Your task to perform on an android device: Search for "razer kraken" on ebay.com, select the first entry, add it to the cart, then select checkout. Image 0: 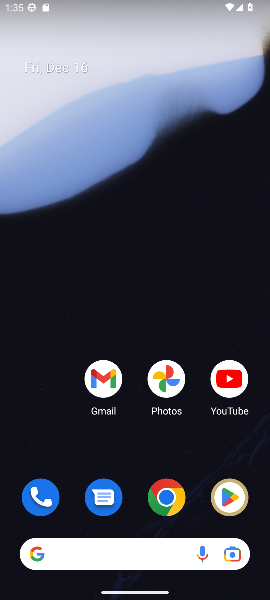
Step 0: click (175, 499)
Your task to perform on an android device: Search for "razer kraken" on ebay.com, select the first entry, add it to the cart, then select checkout. Image 1: 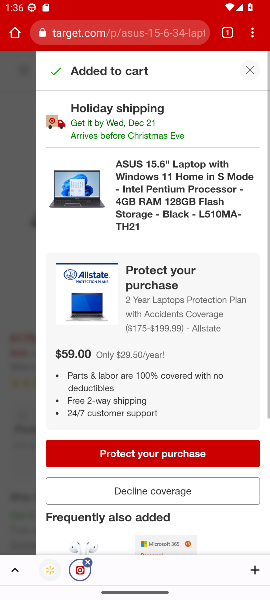
Step 1: click (137, 32)
Your task to perform on an android device: Search for "razer kraken" on ebay.com, select the first entry, add it to the cart, then select checkout. Image 2: 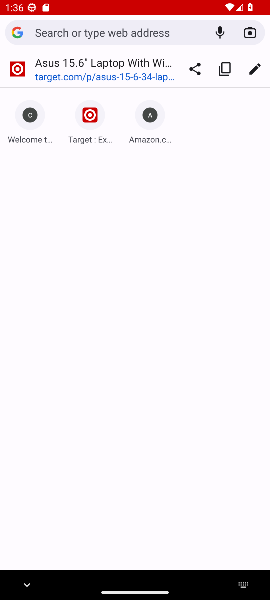
Step 2: type "EBAY"
Your task to perform on an android device: Search for "razer kraken" on ebay.com, select the first entry, add it to the cart, then select checkout. Image 3: 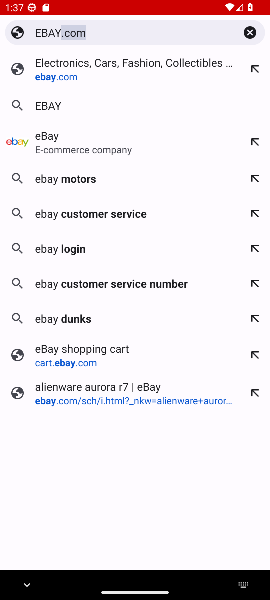
Step 3: click (127, 77)
Your task to perform on an android device: Search for "razer kraken" on ebay.com, select the first entry, add it to the cart, then select checkout. Image 4: 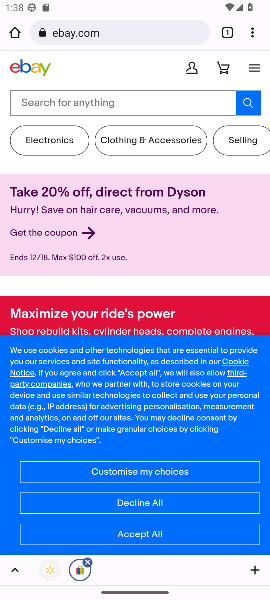
Step 4: click (155, 538)
Your task to perform on an android device: Search for "razer kraken" on ebay.com, select the first entry, add it to the cart, then select checkout. Image 5: 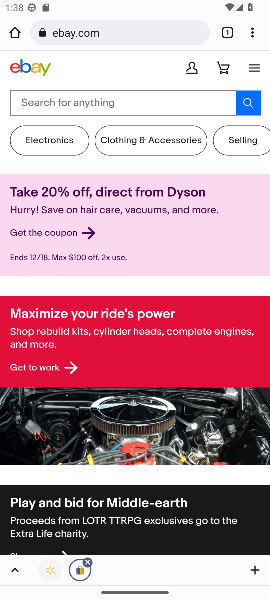
Step 5: click (115, 100)
Your task to perform on an android device: Search for "razer kraken" on ebay.com, select the first entry, add it to the cart, then select checkout. Image 6: 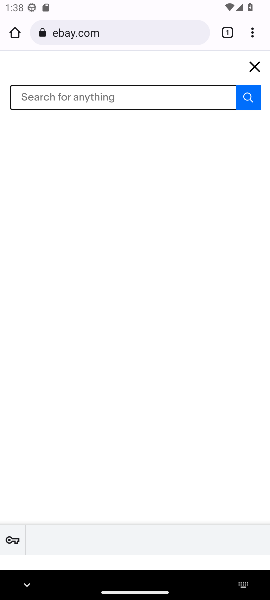
Step 6: type "razer kraken"
Your task to perform on an android device: Search for "razer kraken" on ebay.com, select the first entry, add it to the cart, then select checkout. Image 7: 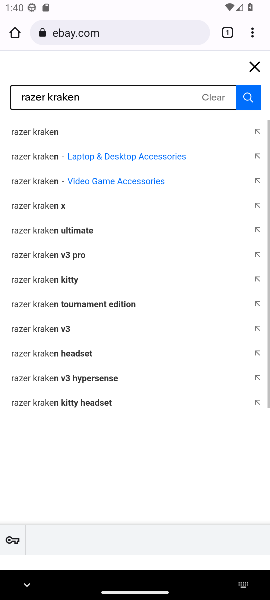
Step 7: click (32, 127)
Your task to perform on an android device: Search for "razer kraken" on ebay.com, select the first entry, add it to the cart, then select checkout. Image 8: 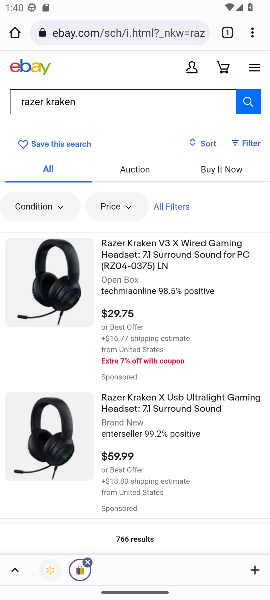
Step 8: click (207, 258)
Your task to perform on an android device: Search for "razer kraken" on ebay.com, select the first entry, add it to the cart, then select checkout. Image 9: 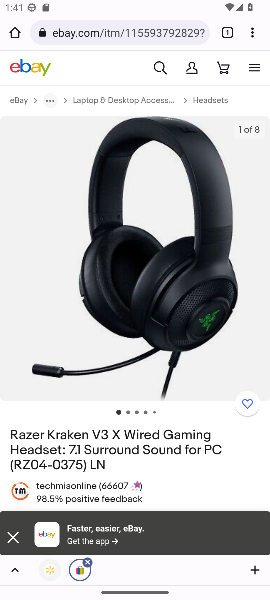
Step 9: drag from (200, 468) to (171, 67)
Your task to perform on an android device: Search for "razer kraken" on ebay.com, select the first entry, add it to the cart, then select checkout. Image 10: 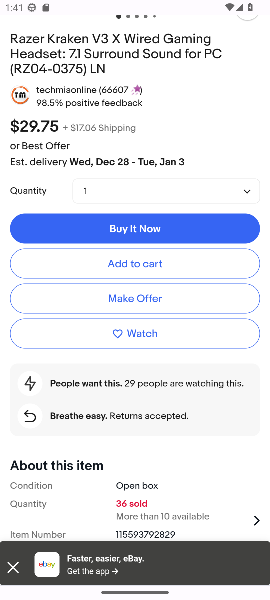
Step 10: click (132, 267)
Your task to perform on an android device: Search for "razer kraken" on ebay.com, select the first entry, add it to the cart, then select checkout. Image 11: 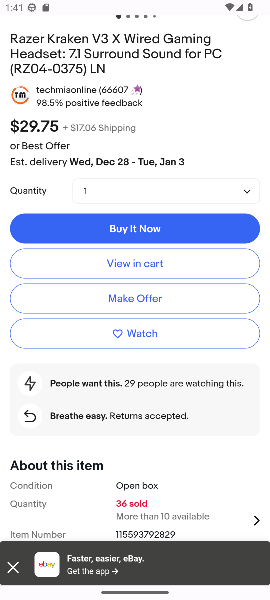
Step 11: click (132, 267)
Your task to perform on an android device: Search for "razer kraken" on ebay.com, select the first entry, add it to the cart, then select checkout. Image 12: 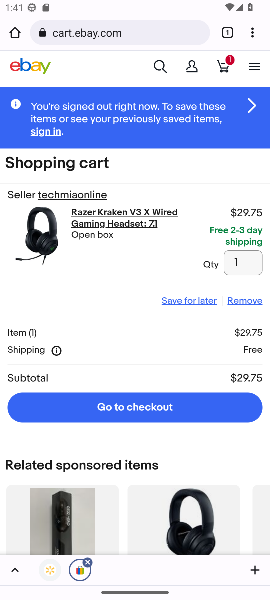
Step 12: click (133, 392)
Your task to perform on an android device: Search for "razer kraken" on ebay.com, select the first entry, add it to the cart, then select checkout. Image 13: 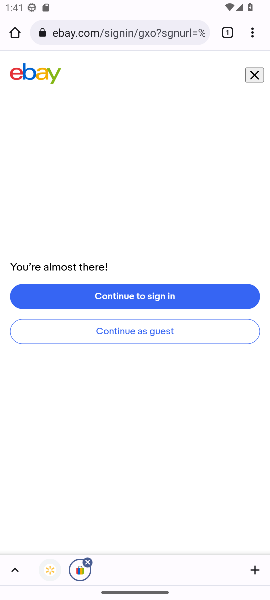
Step 13: task complete